Your task to perform on an android device: Open Reddit.com Image 0: 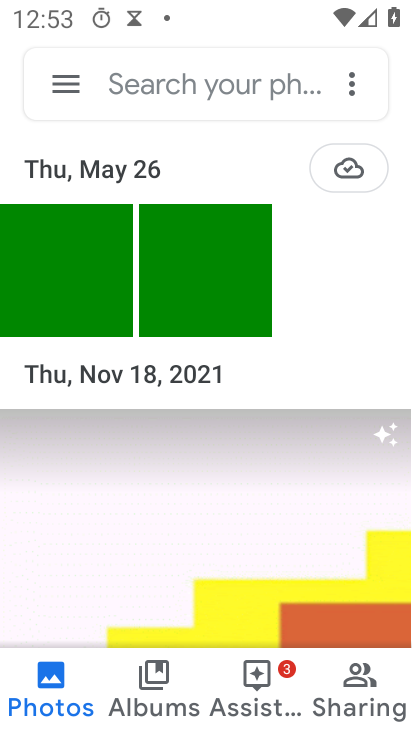
Step 0: press home button
Your task to perform on an android device: Open Reddit.com Image 1: 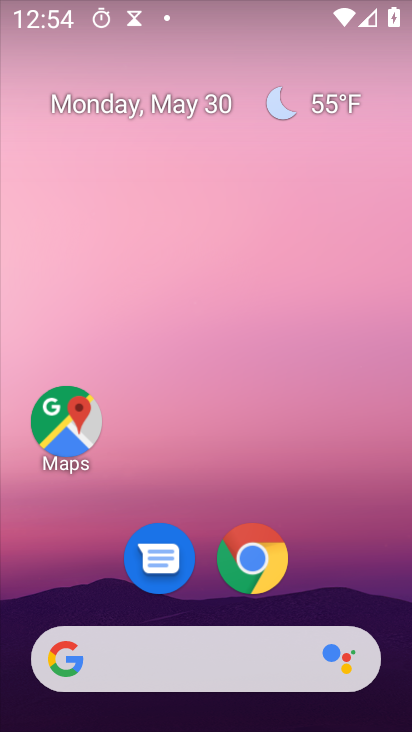
Step 1: click (254, 573)
Your task to perform on an android device: Open Reddit.com Image 2: 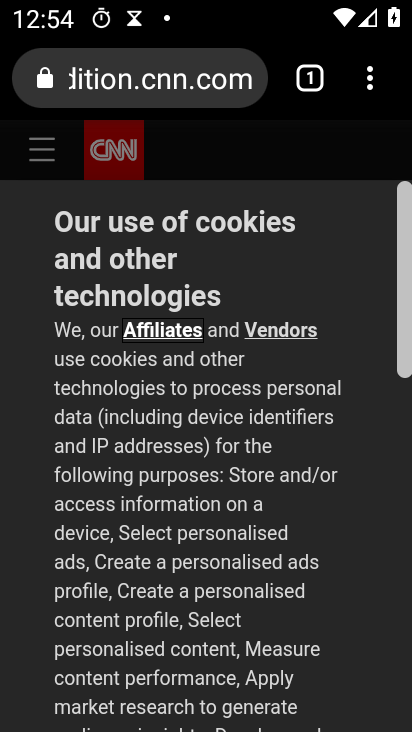
Step 2: click (163, 87)
Your task to perform on an android device: Open Reddit.com Image 3: 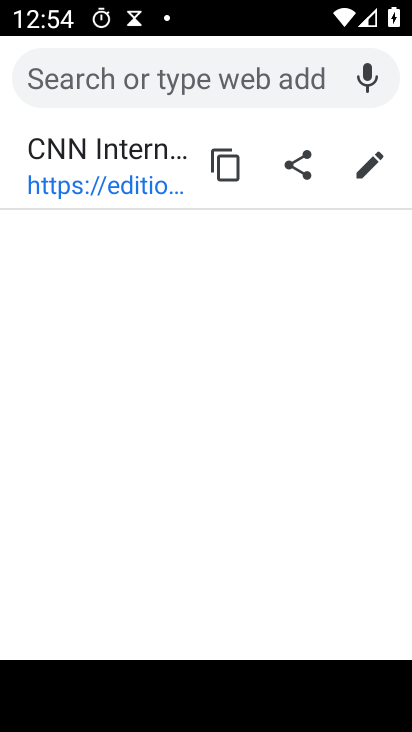
Step 3: type "redit"
Your task to perform on an android device: Open Reddit.com Image 4: 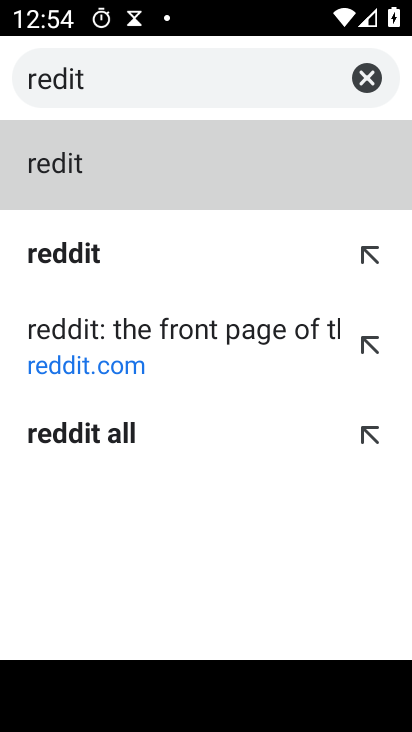
Step 4: click (133, 353)
Your task to perform on an android device: Open Reddit.com Image 5: 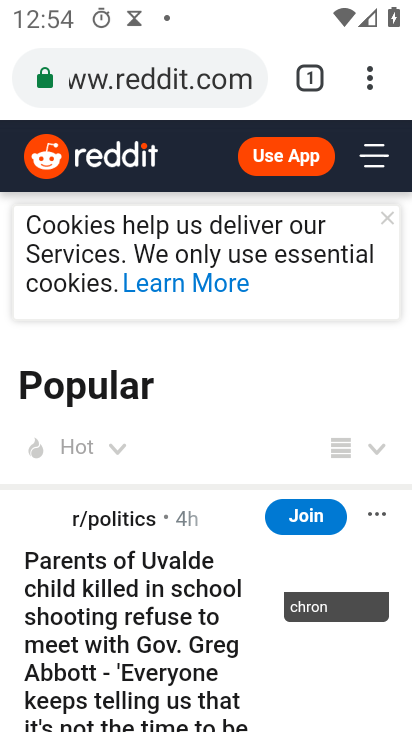
Step 5: task complete